Your task to perform on an android device: Go to Maps Image 0: 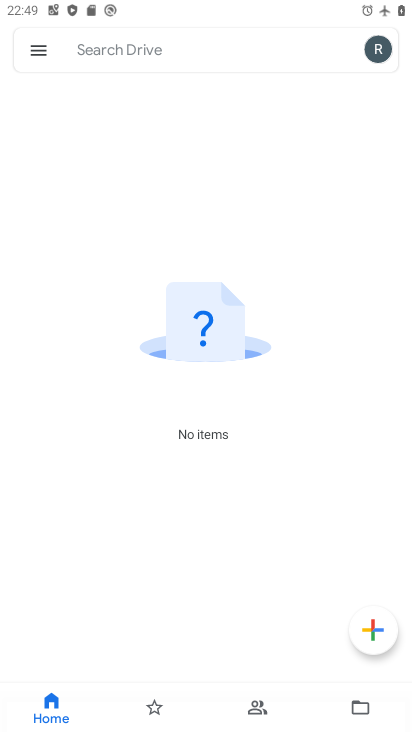
Step 0: press home button
Your task to perform on an android device: Go to Maps Image 1: 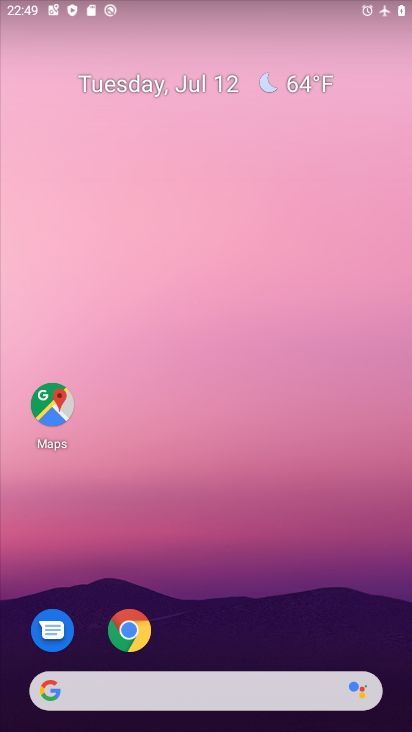
Step 1: click (34, 411)
Your task to perform on an android device: Go to Maps Image 2: 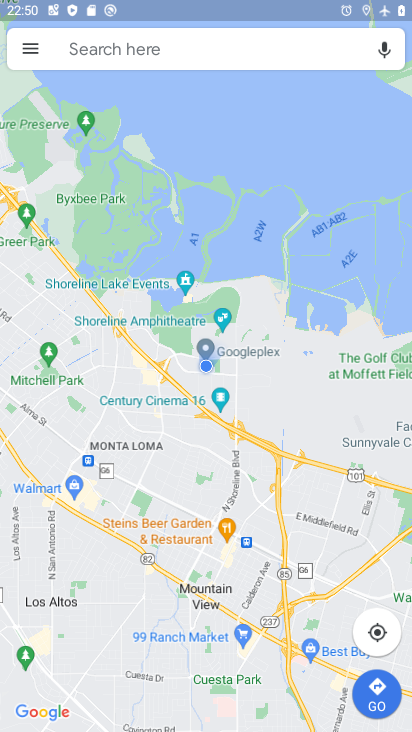
Step 2: task complete